Your task to perform on an android device: Open the phone app and click the voicemail tab. Image 0: 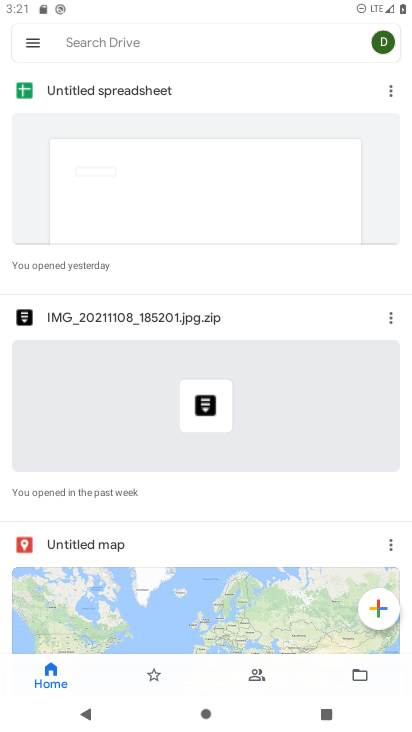
Step 0: press home button
Your task to perform on an android device: Open the phone app and click the voicemail tab. Image 1: 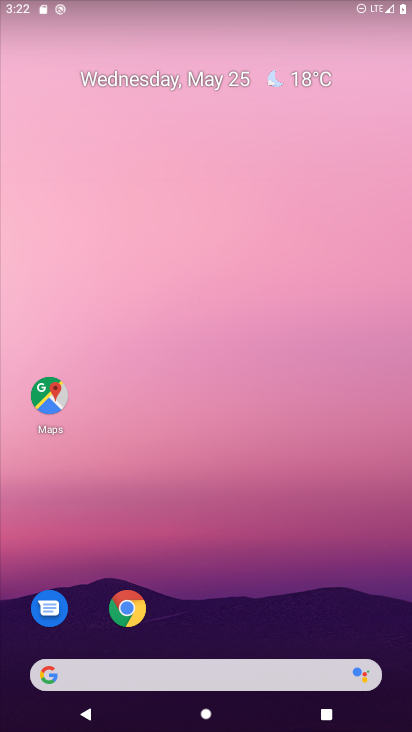
Step 1: drag from (343, 626) to (314, 82)
Your task to perform on an android device: Open the phone app and click the voicemail tab. Image 2: 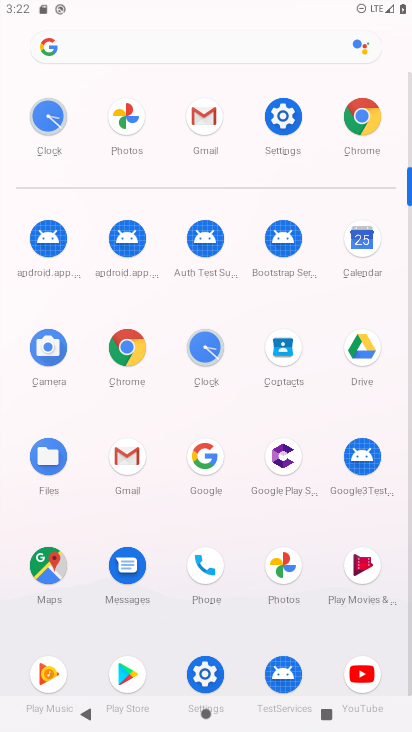
Step 2: click (202, 570)
Your task to perform on an android device: Open the phone app and click the voicemail tab. Image 3: 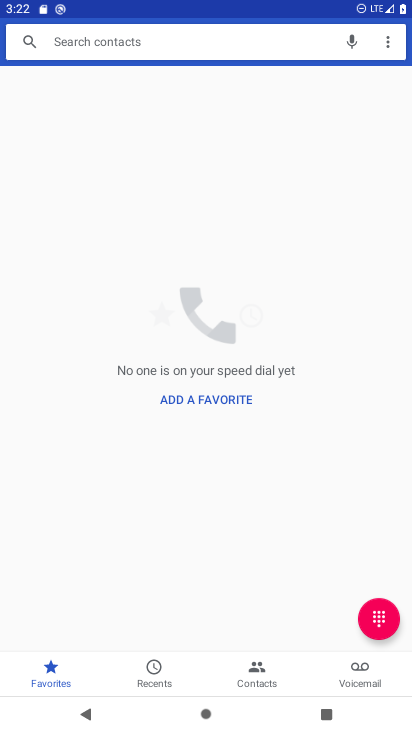
Step 3: click (364, 680)
Your task to perform on an android device: Open the phone app and click the voicemail tab. Image 4: 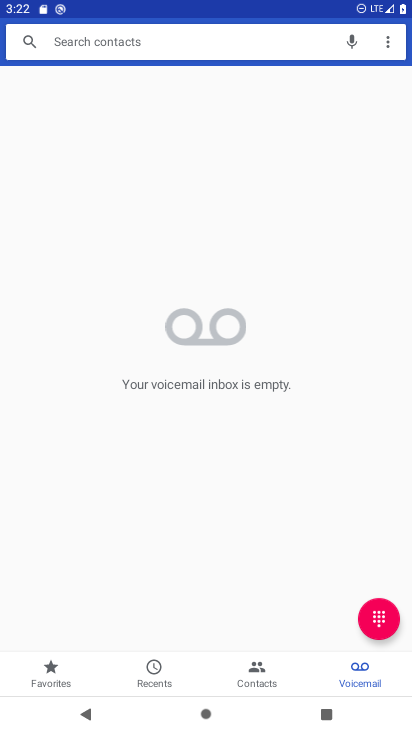
Step 4: task complete